Your task to perform on an android device: open app "PUBG MOBILE" Image 0: 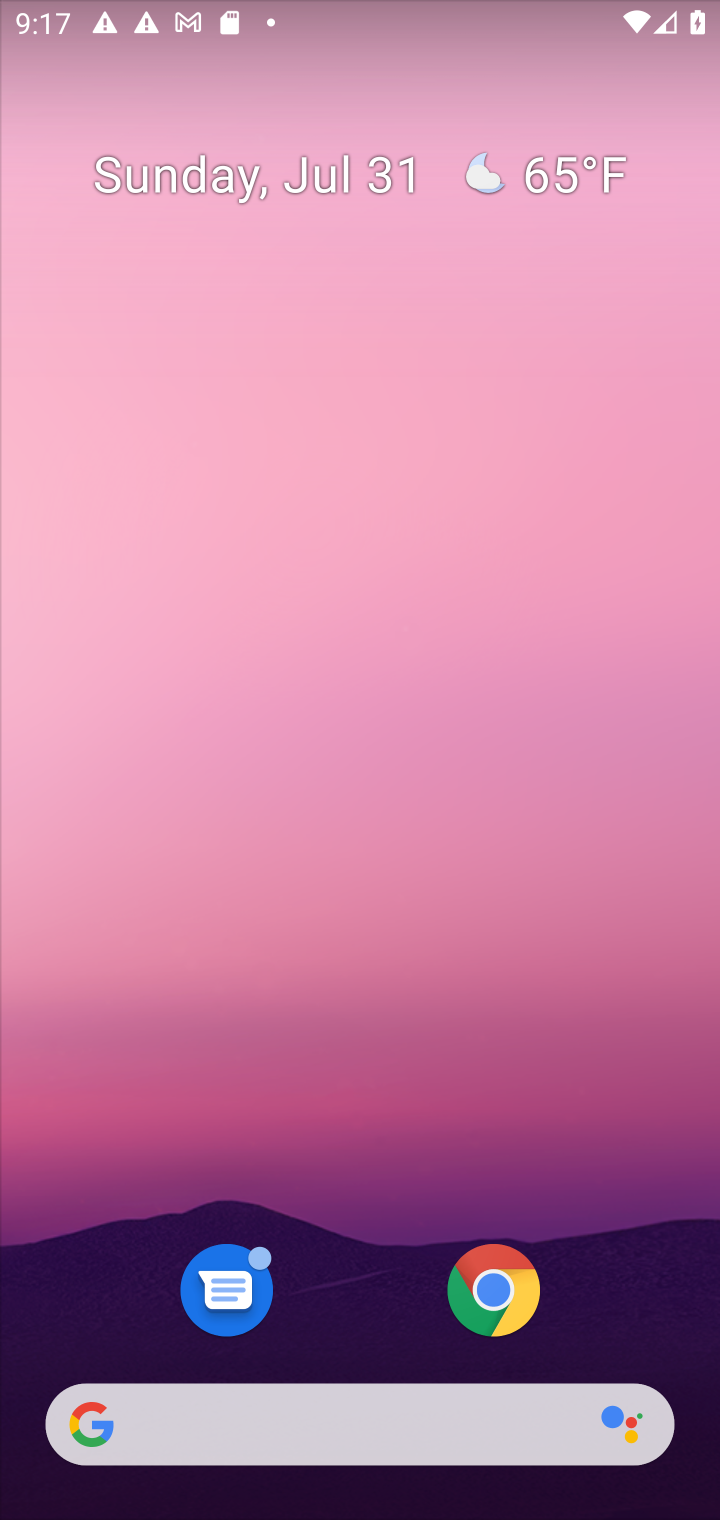
Step 0: press home button
Your task to perform on an android device: open app "PUBG MOBILE" Image 1: 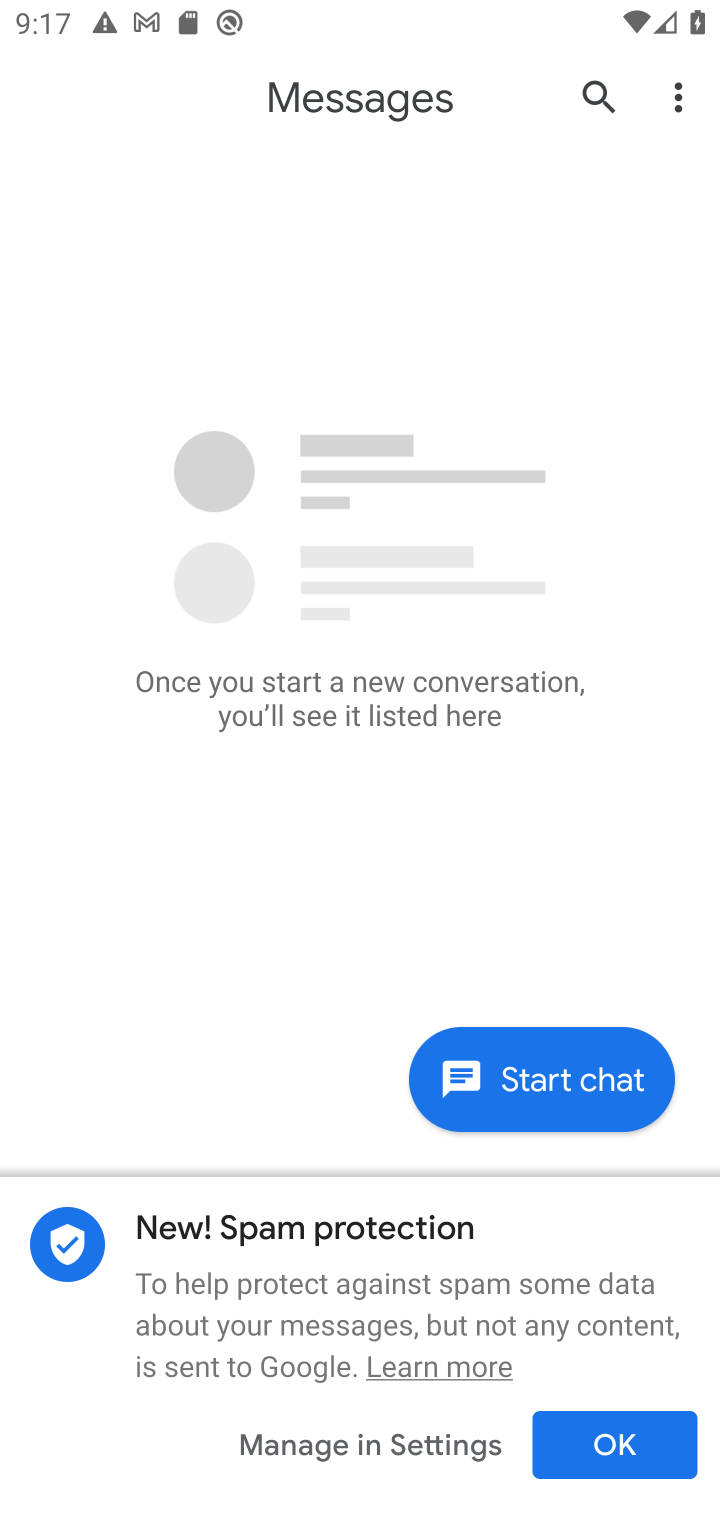
Step 1: press home button
Your task to perform on an android device: open app "PUBG MOBILE" Image 2: 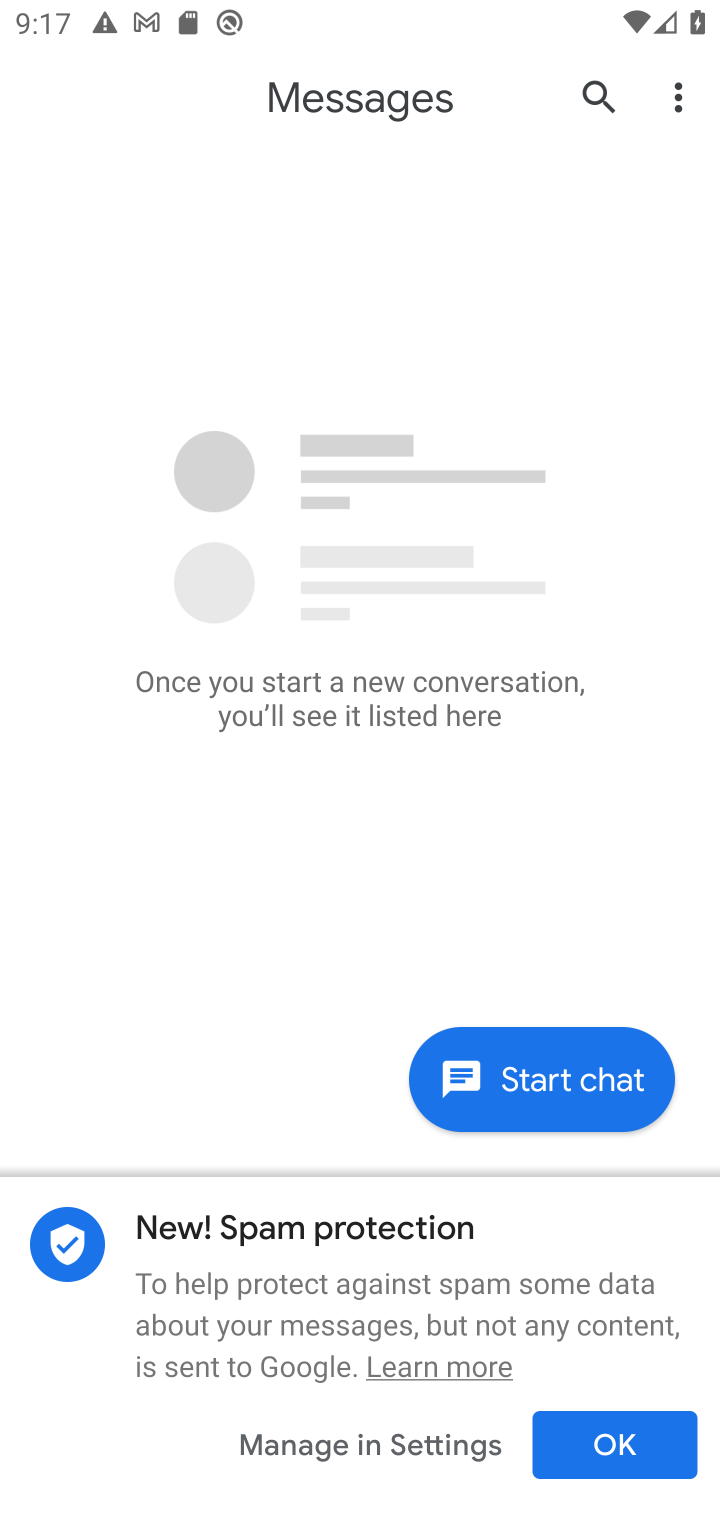
Step 2: click (608, 127)
Your task to perform on an android device: open app "PUBG MOBILE" Image 3: 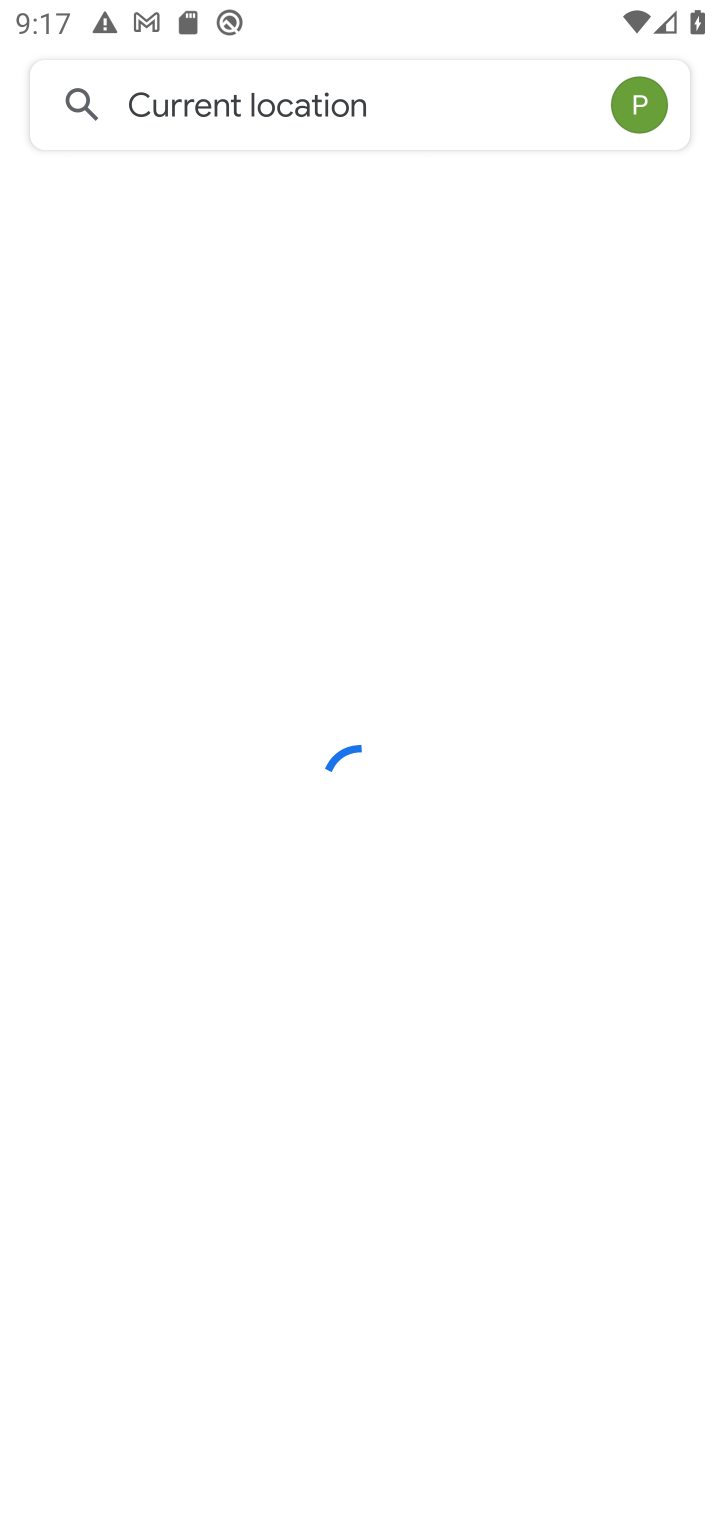
Step 3: press home button
Your task to perform on an android device: open app "PUBG MOBILE" Image 4: 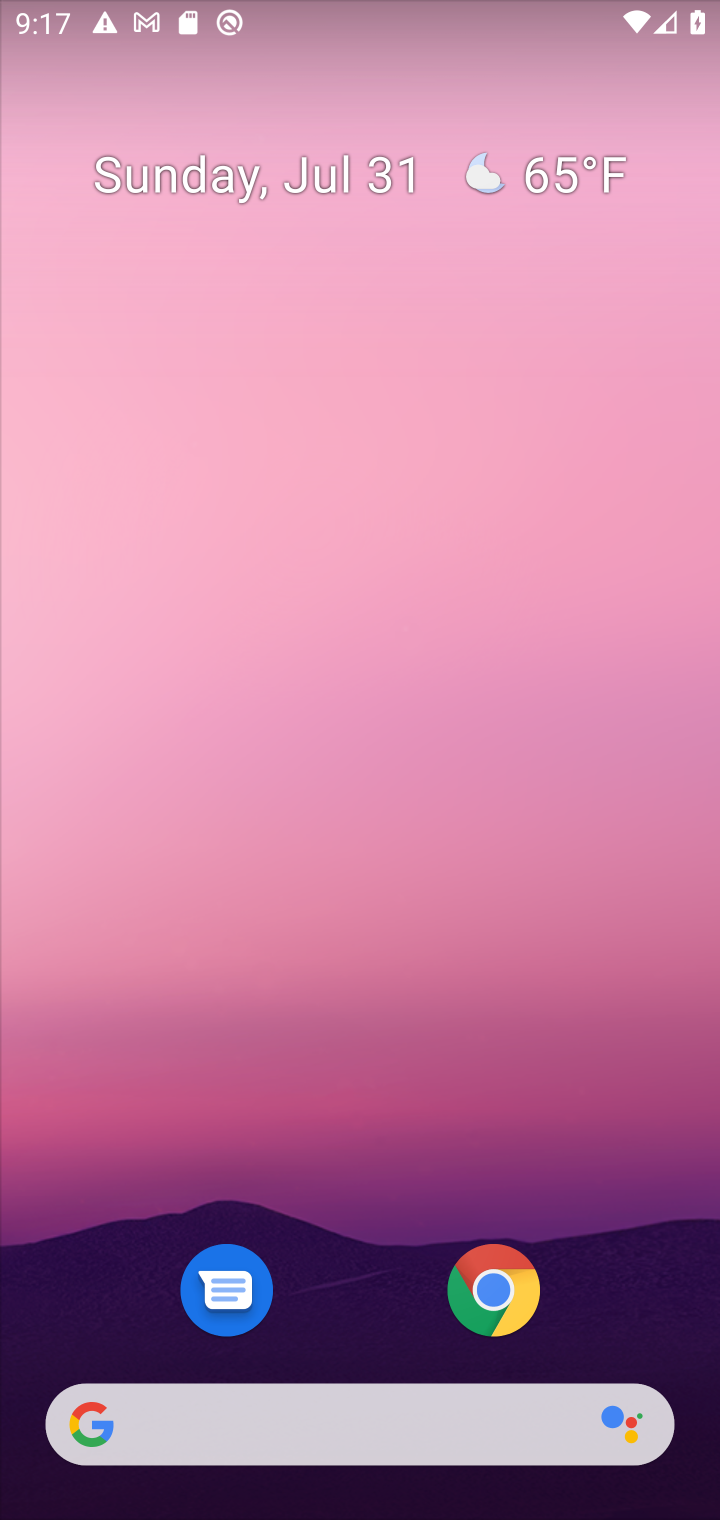
Step 4: drag from (583, 1173) to (560, 90)
Your task to perform on an android device: open app "PUBG MOBILE" Image 5: 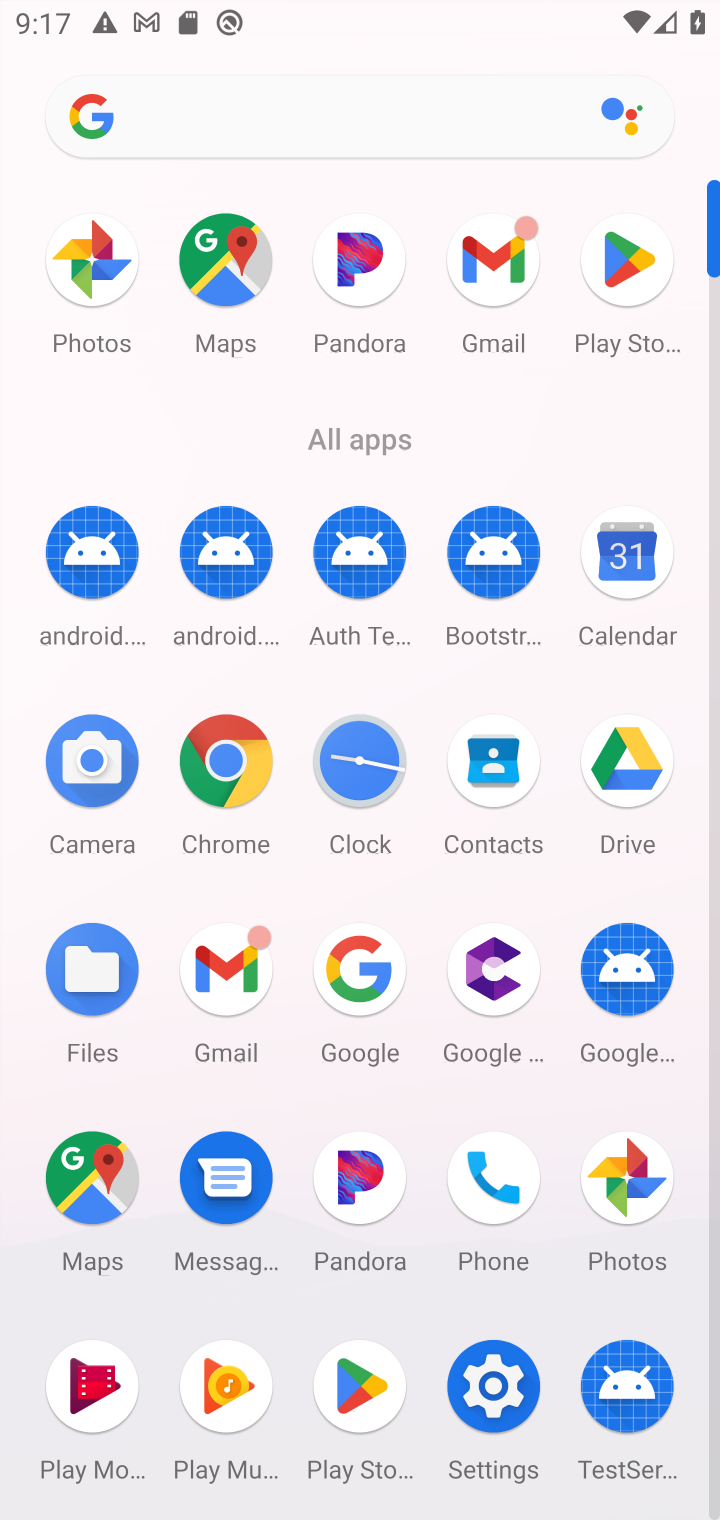
Step 5: click (621, 264)
Your task to perform on an android device: open app "PUBG MOBILE" Image 6: 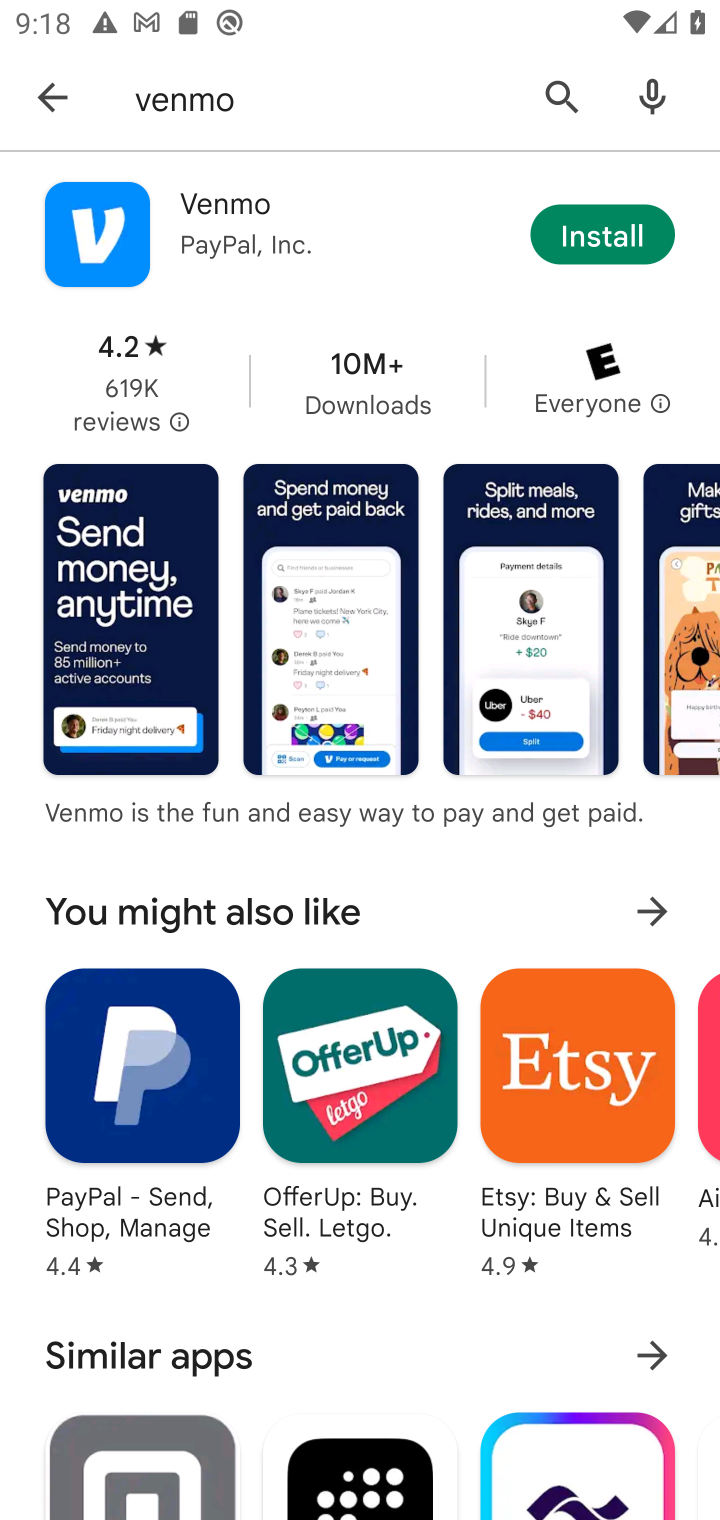
Step 6: click (546, 75)
Your task to perform on an android device: open app "PUBG MOBILE" Image 7: 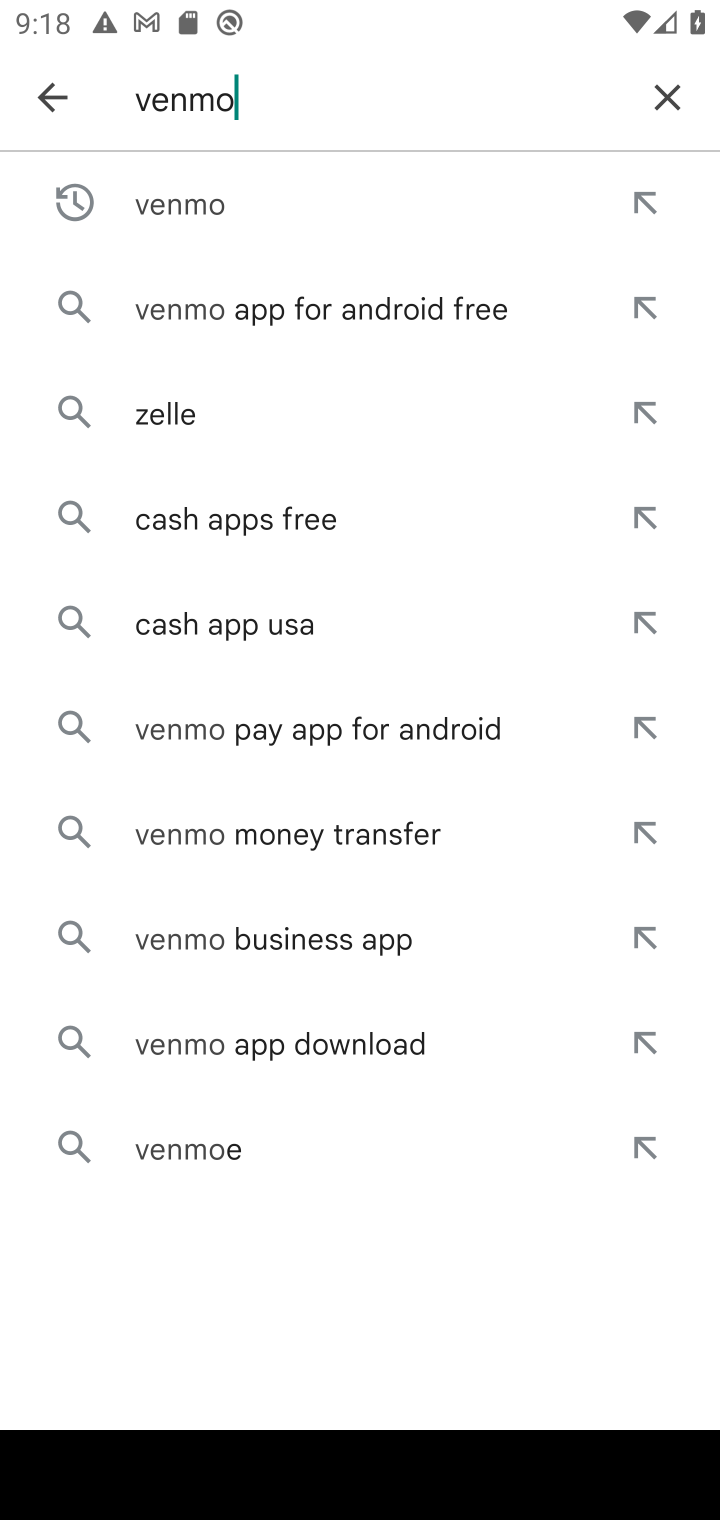
Step 7: click (663, 98)
Your task to perform on an android device: open app "PUBG MOBILE" Image 8: 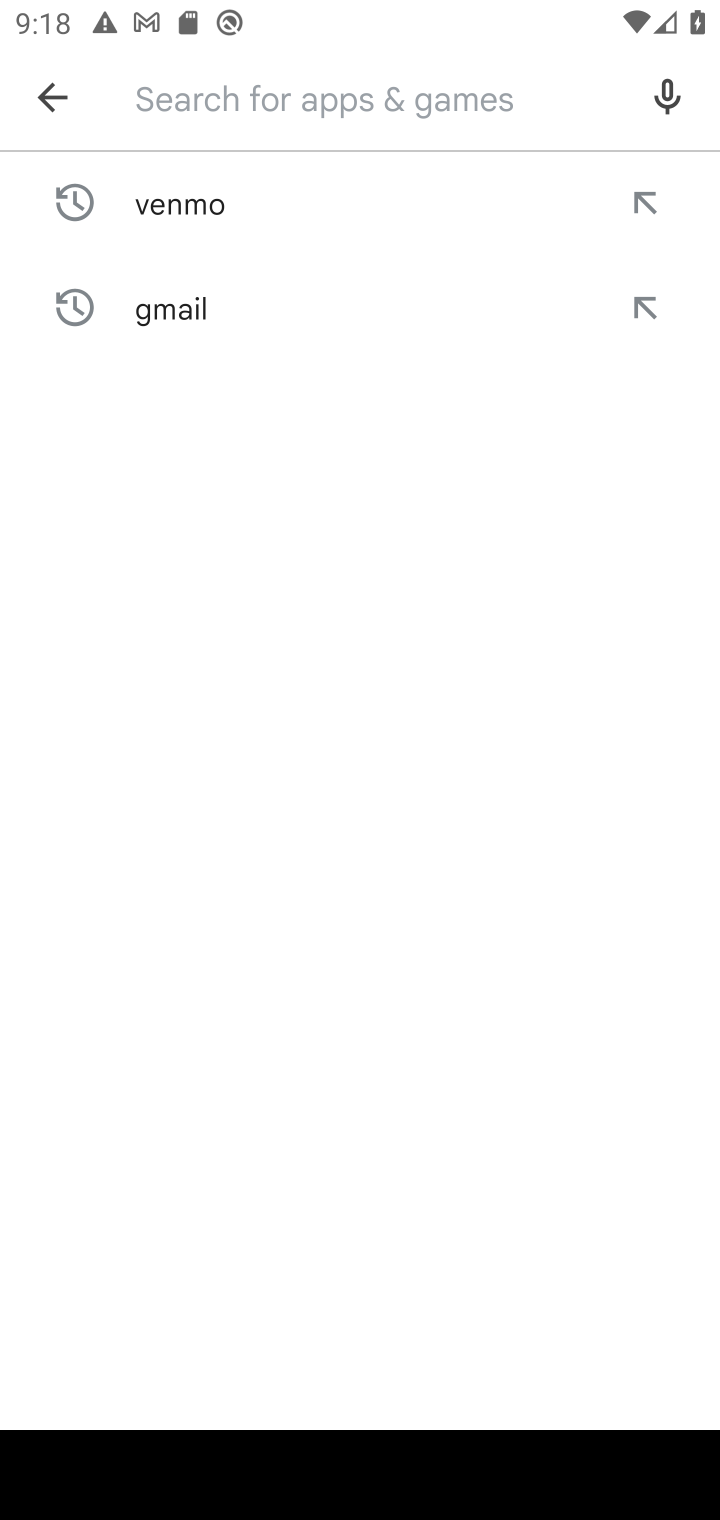
Step 8: type "pubg mobile"
Your task to perform on an android device: open app "PUBG MOBILE" Image 9: 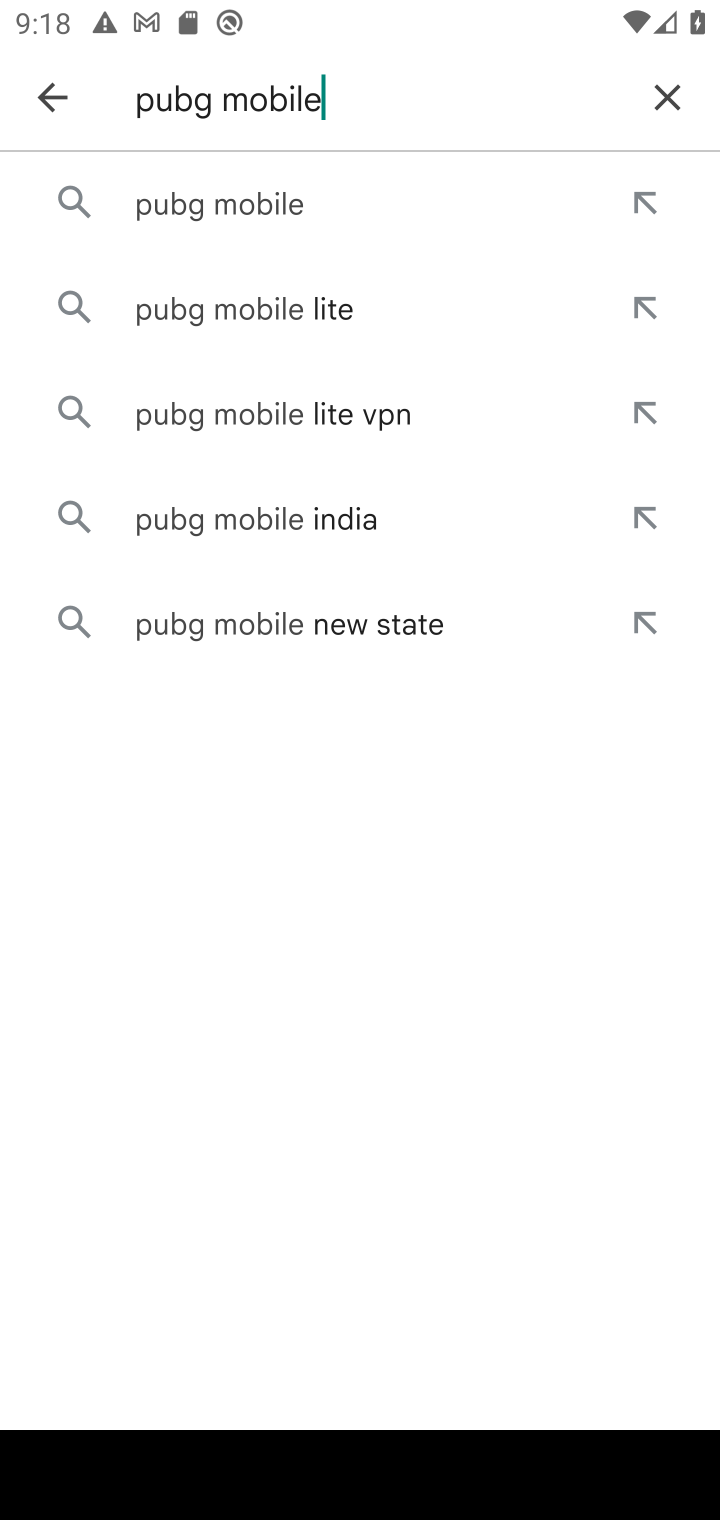
Step 9: click (309, 211)
Your task to perform on an android device: open app "PUBG MOBILE" Image 10: 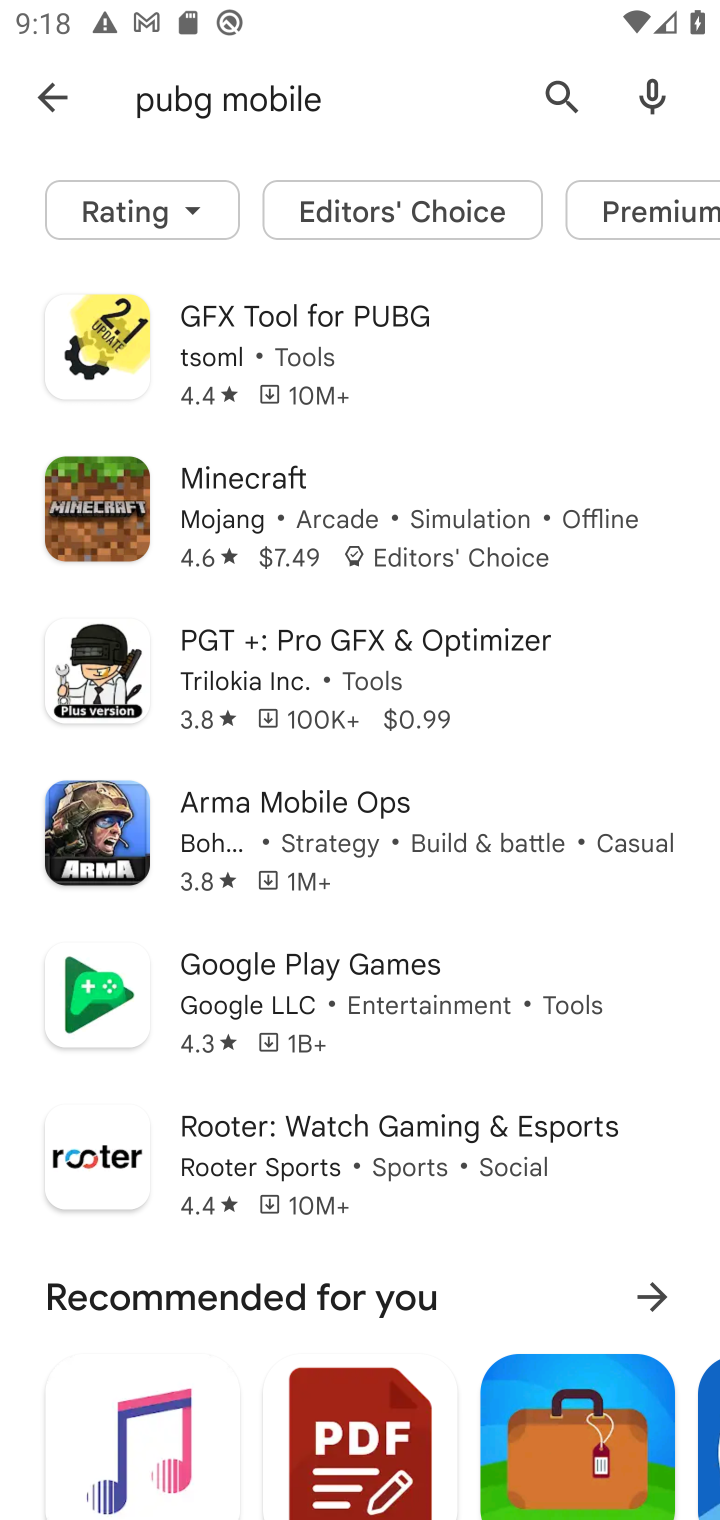
Step 10: task complete